Your task to perform on an android device: turn off picture-in-picture Image 0: 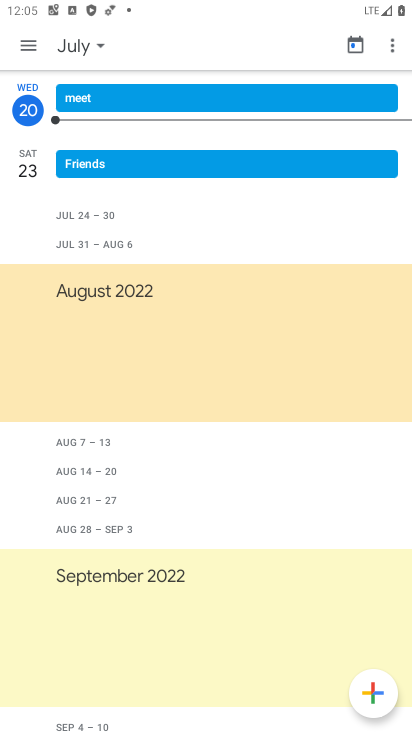
Step 0: press home button
Your task to perform on an android device: turn off picture-in-picture Image 1: 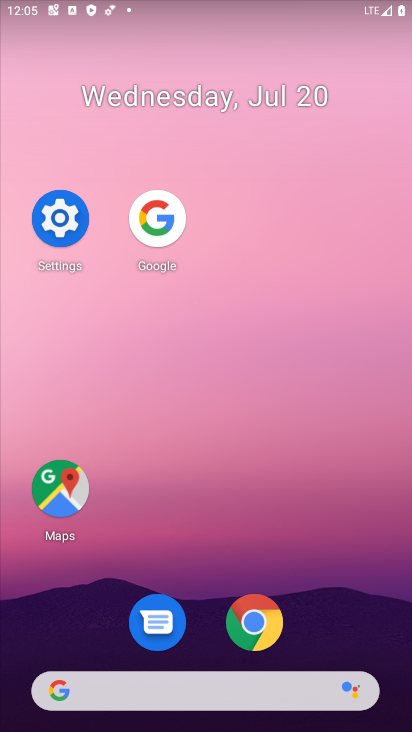
Step 1: click (259, 621)
Your task to perform on an android device: turn off picture-in-picture Image 2: 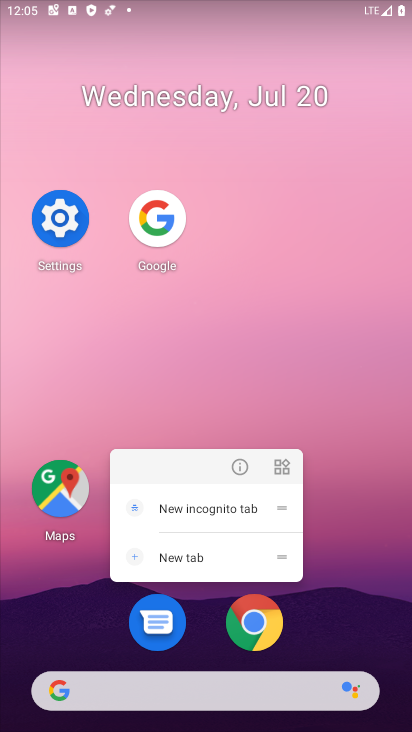
Step 2: click (233, 469)
Your task to perform on an android device: turn off picture-in-picture Image 3: 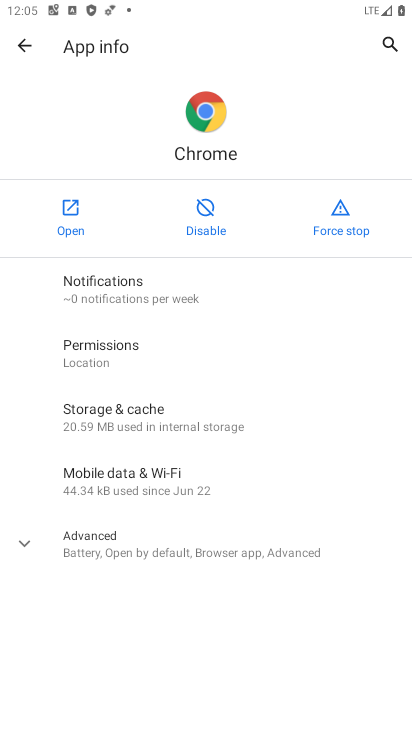
Step 3: click (177, 558)
Your task to perform on an android device: turn off picture-in-picture Image 4: 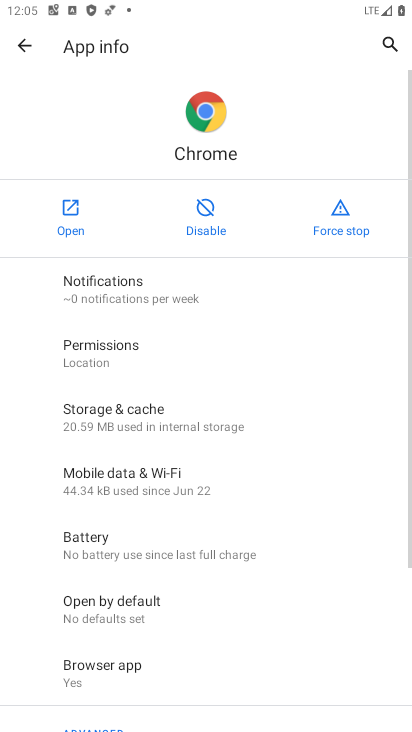
Step 4: drag from (183, 648) to (179, 337)
Your task to perform on an android device: turn off picture-in-picture Image 5: 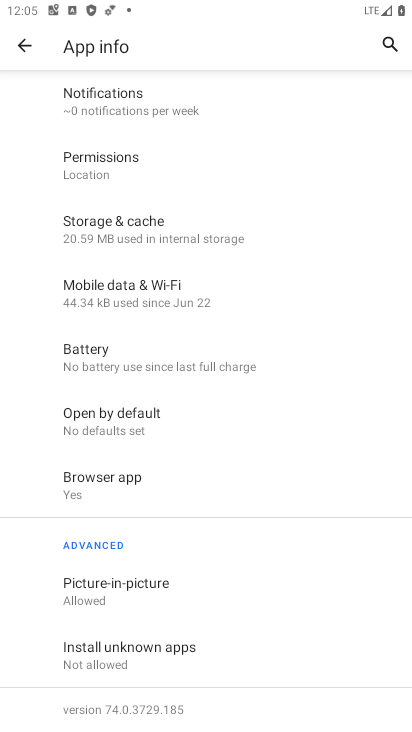
Step 5: click (178, 612)
Your task to perform on an android device: turn off picture-in-picture Image 6: 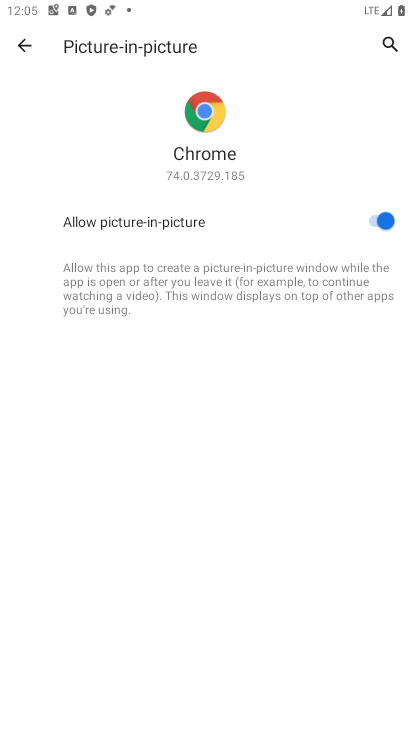
Step 6: click (367, 222)
Your task to perform on an android device: turn off picture-in-picture Image 7: 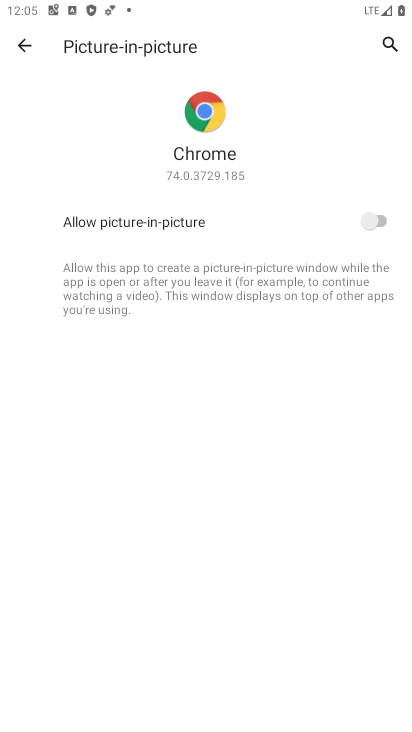
Step 7: task complete